Your task to perform on an android device: Open Chrome and go to settings Image 0: 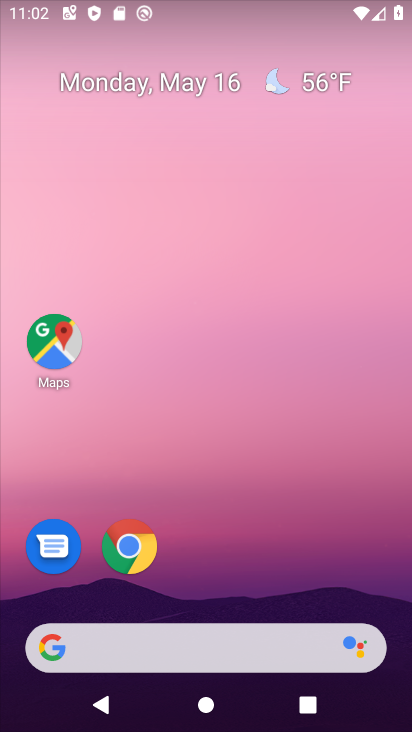
Step 0: drag from (314, 538) to (94, 724)
Your task to perform on an android device: Open Chrome and go to settings Image 1: 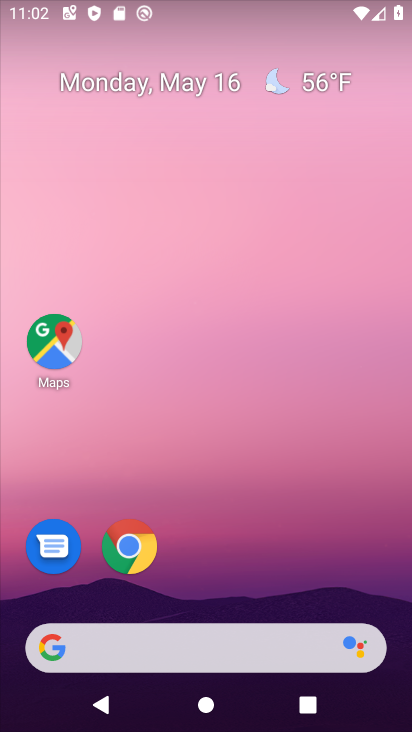
Step 1: drag from (327, 511) to (275, 119)
Your task to perform on an android device: Open Chrome and go to settings Image 2: 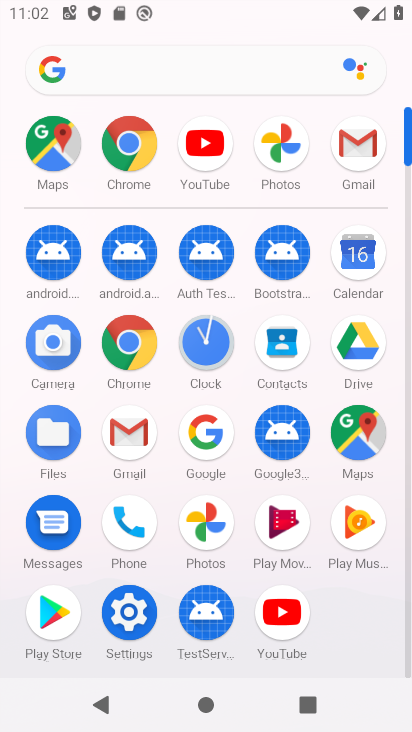
Step 2: click (125, 135)
Your task to perform on an android device: Open Chrome and go to settings Image 3: 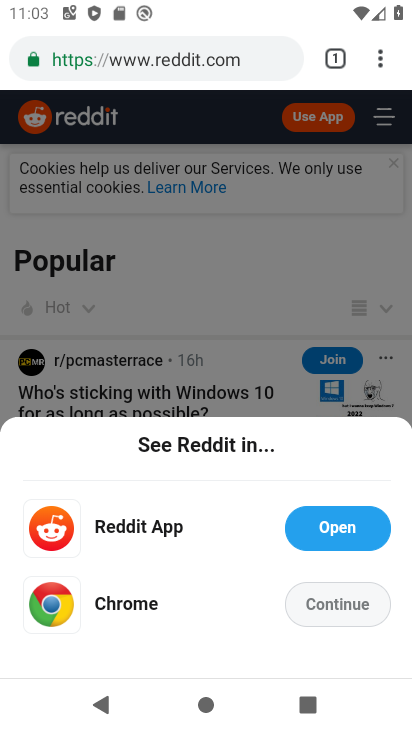
Step 3: task complete